Your task to perform on an android device: Open Google Image 0: 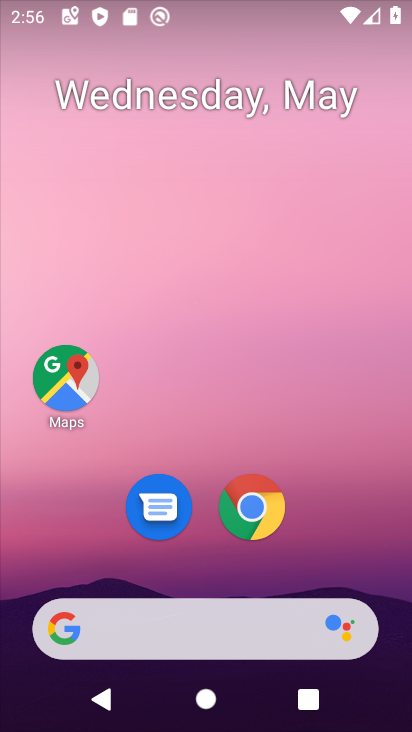
Step 0: drag from (198, 568) to (178, 66)
Your task to perform on an android device: Open Google Image 1: 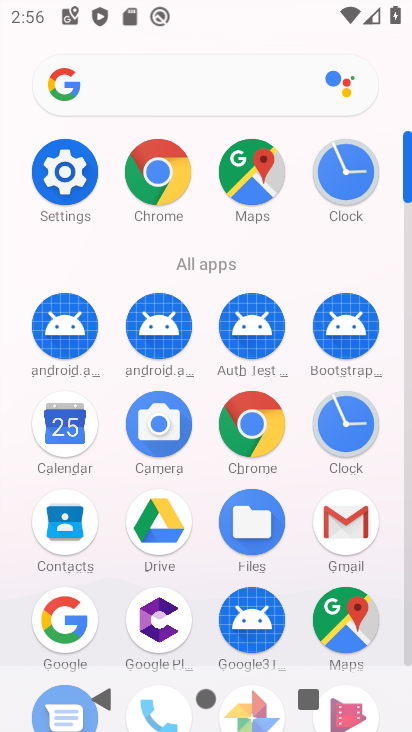
Step 1: click (72, 614)
Your task to perform on an android device: Open Google Image 2: 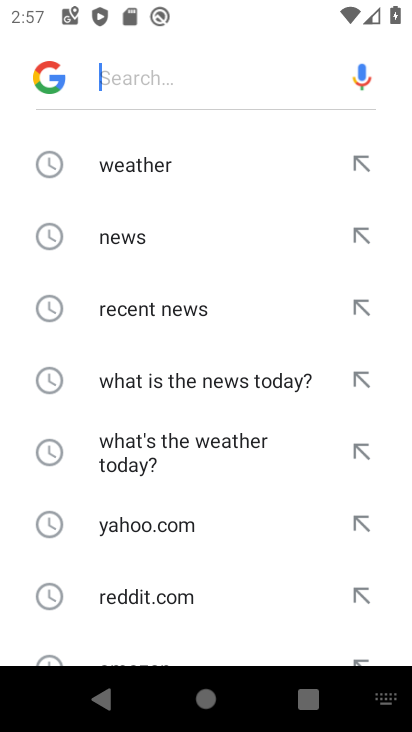
Step 2: task complete